Your task to perform on an android device: Search for vegetarian restaurants on Maps Image 0: 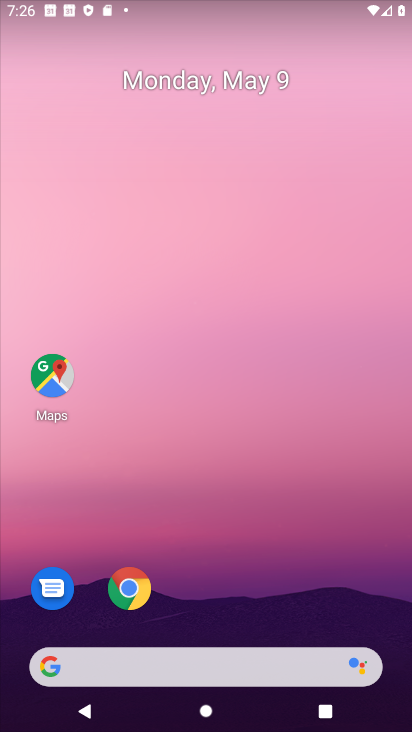
Step 0: click (391, 105)
Your task to perform on an android device: Search for vegetarian restaurants on Maps Image 1: 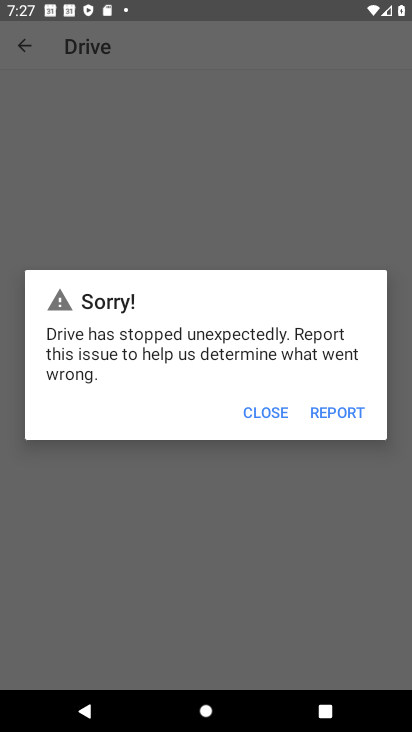
Step 1: press home button
Your task to perform on an android device: Search for vegetarian restaurants on Maps Image 2: 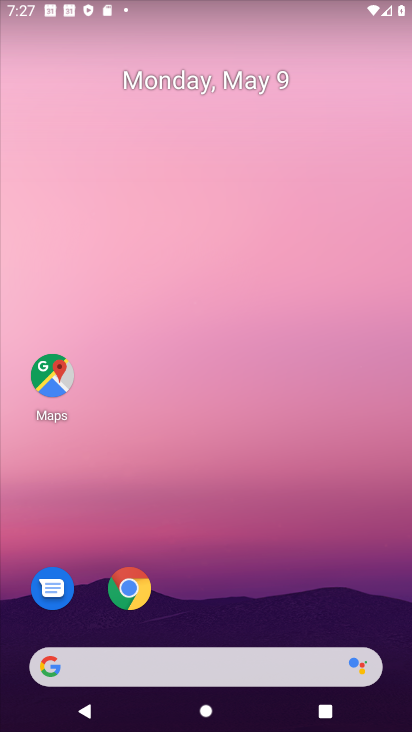
Step 2: drag from (173, 664) to (312, 131)
Your task to perform on an android device: Search for vegetarian restaurants on Maps Image 3: 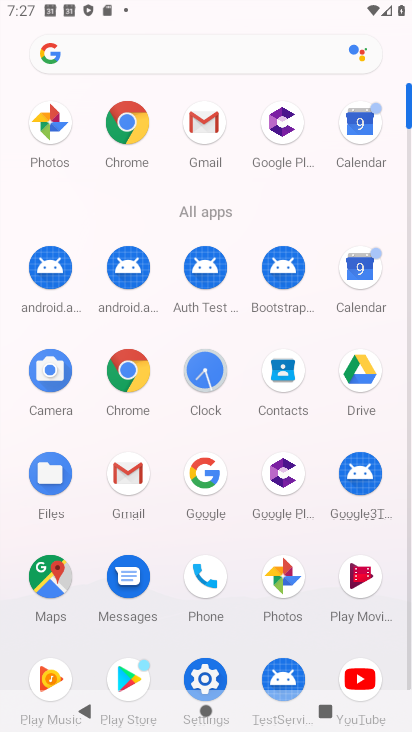
Step 3: click (47, 586)
Your task to perform on an android device: Search for vegetarian restaurants on Maps Image 4: 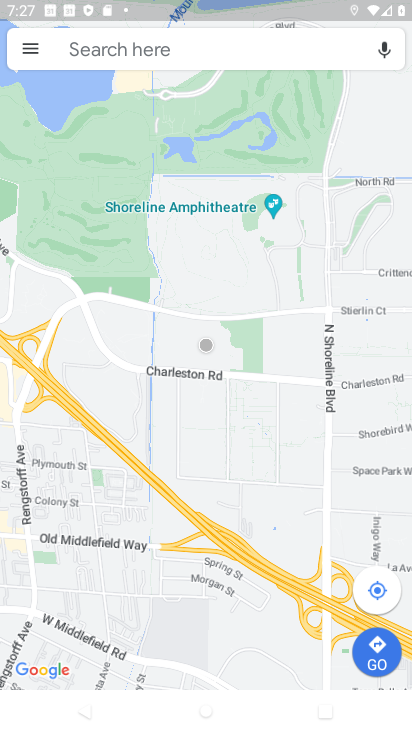
Step 4: click (199, 46)
Your task to perform on an android device: Search for vegetarian restaurants on Maps Image 5: 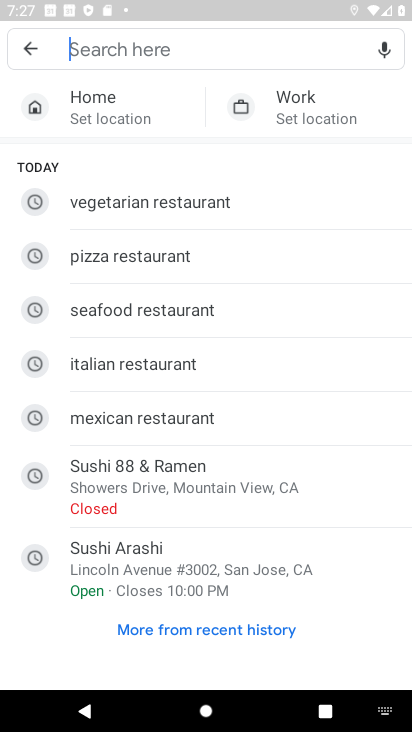
Step 5: click (166, 209)
Your task to perform on an android device: Search for vegetarian restaurants on Maps Image 6: 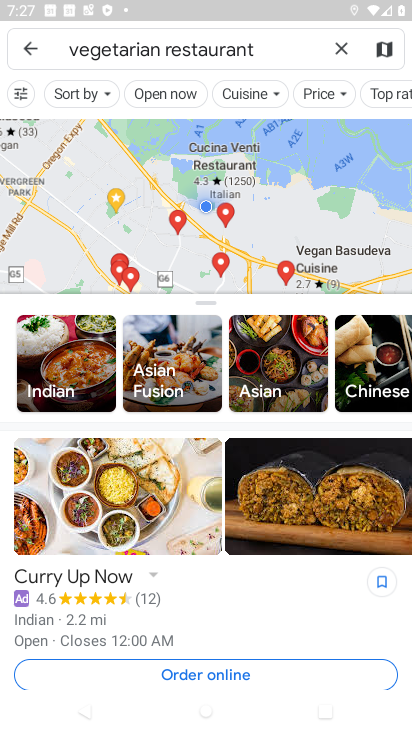
Step 6: task complete